Your task to perform on an android device: Go to internet settings Image 0: 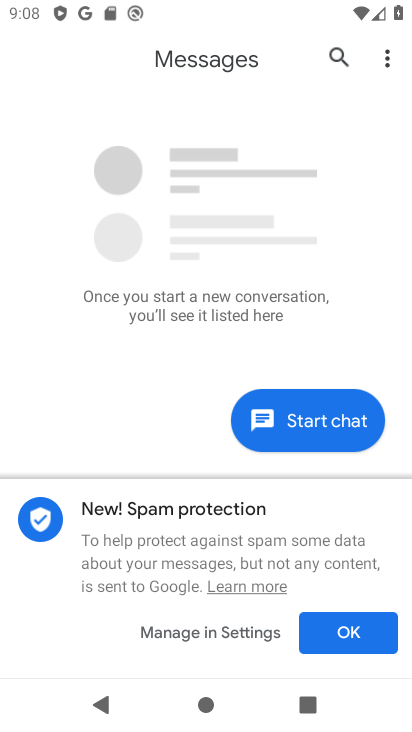
Step 0: press home button
Your task to perform on an android device: Go to internet settings Image 1: 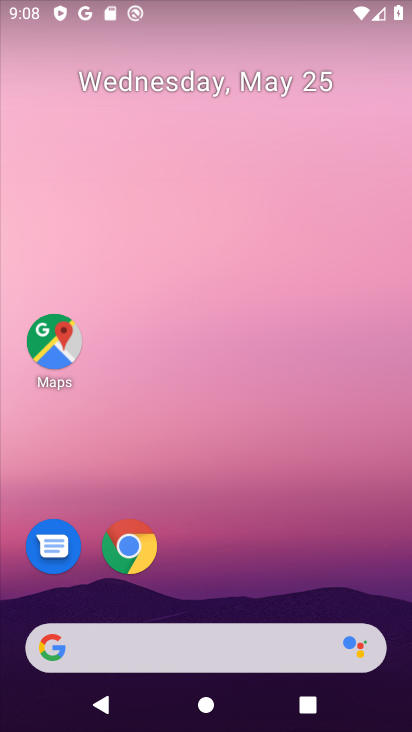
Step 1: drag from (162, 600) to (260, 139)
Your task to perform on an android device: Go to internet settings Image 2: 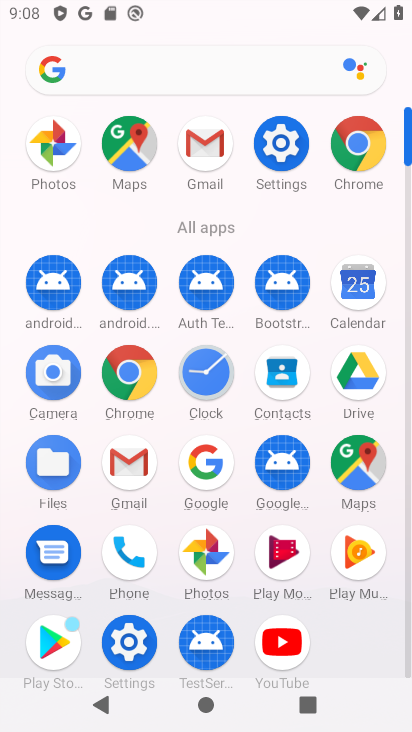
Step 2: click (127, 650)
Your task to perform on an android device: Go to internet settings Image 3: 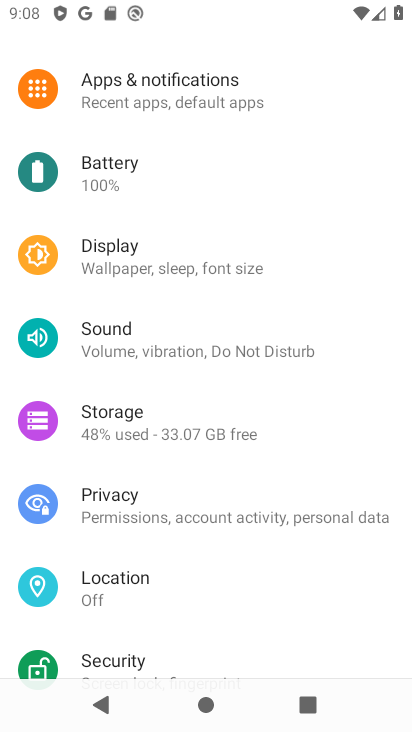
Step 3: drag from (235, 117) to (233, 343)
Your task to perform on an android device: Go to internet settings Image 4: 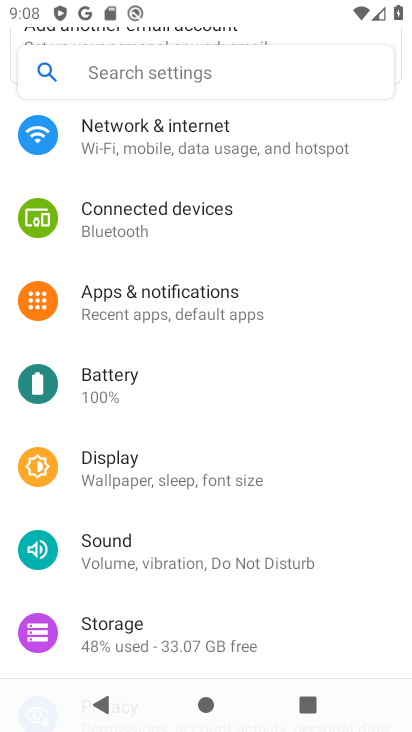
Step 4: click (231, 146)
Your task to perform on an android device: Go to internet settings Image 5: 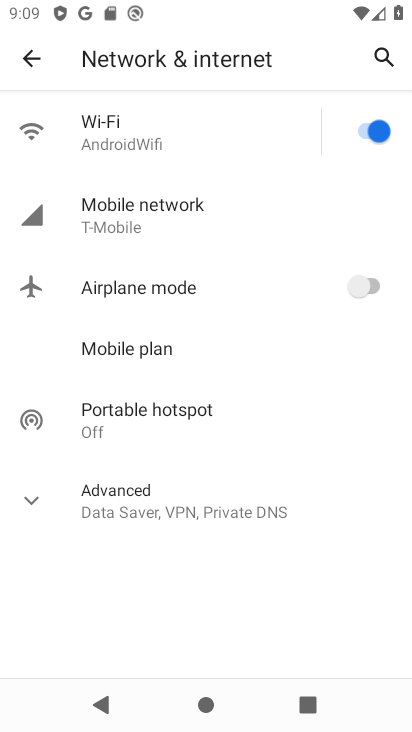
Step 5: click (209, 230)
Your task to perform on an android device: Go to internet settings Image 6: 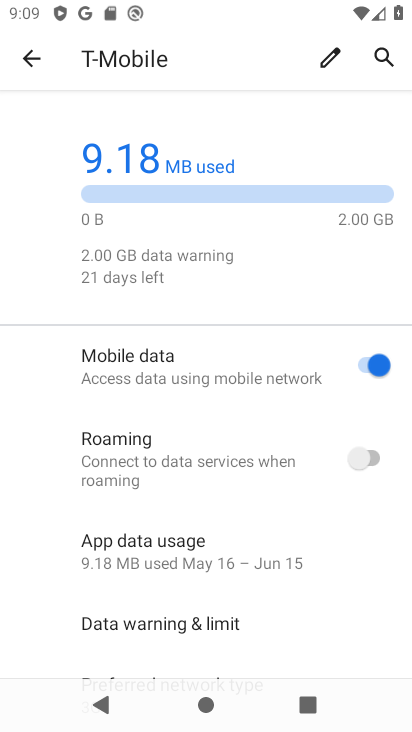
Step 6: task complete